Your task to perform on an android device: Go to location settings Image 0: 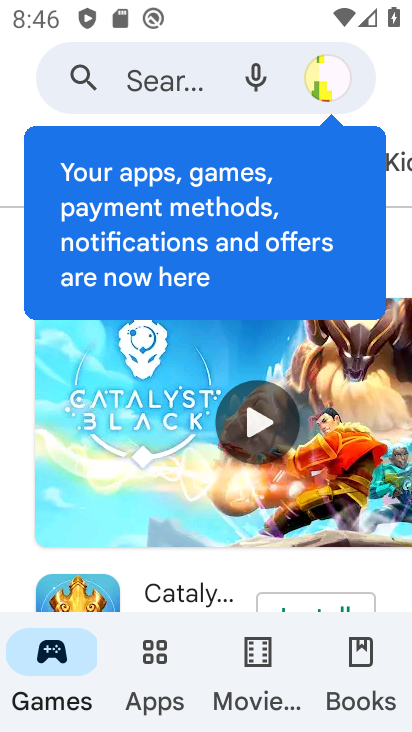
Step 0: press home button
Your task to perform on an android device: Go to location settings Image 1: 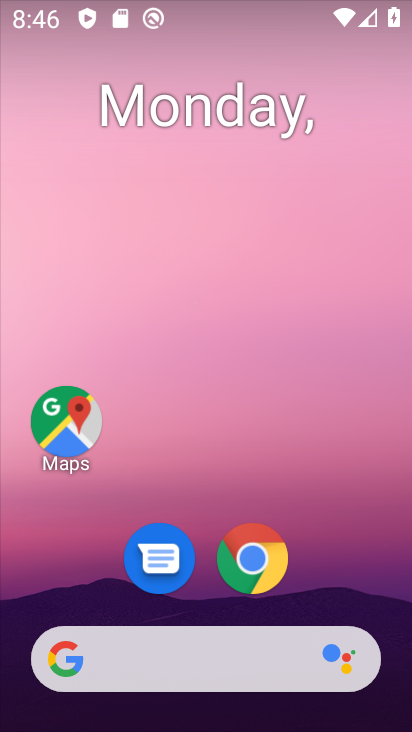
Step 1: drag from (330, 565) to (366, 86)
Your task to perform on an android device: Go to location settings Image 2: 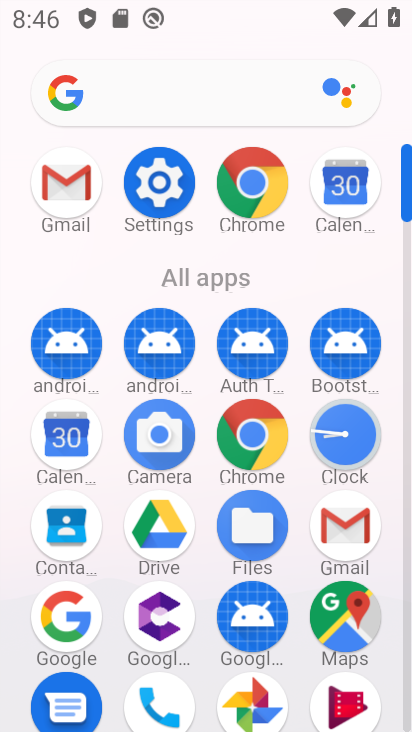
Step 2: click (166, 177)
Your task to perform on an android device: Go to location settings Image 3: 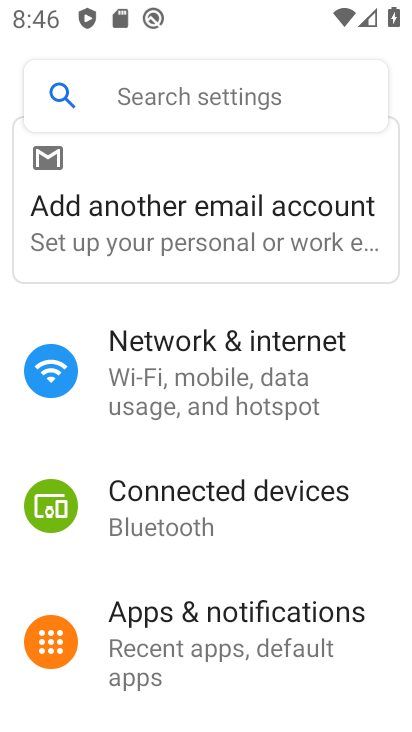
Step 3: drag from (265, 671) to (327, 320)
Your task to perform on an android device: Go to location settings Image 4: 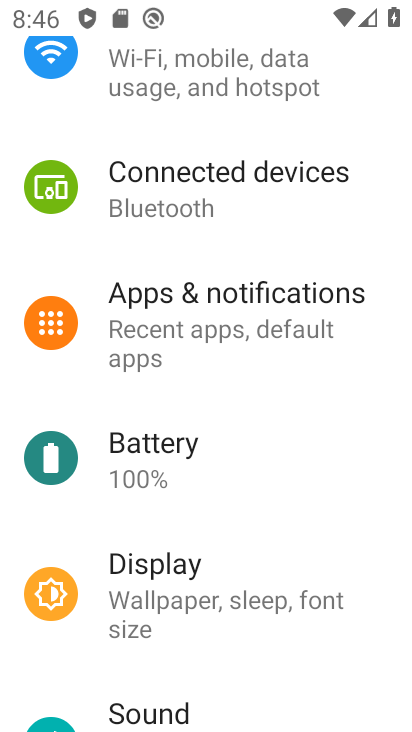
Step 4: drag from (285, 632) to (361, 254)
Your task to perform on an android device: Go to location settings Image 5: 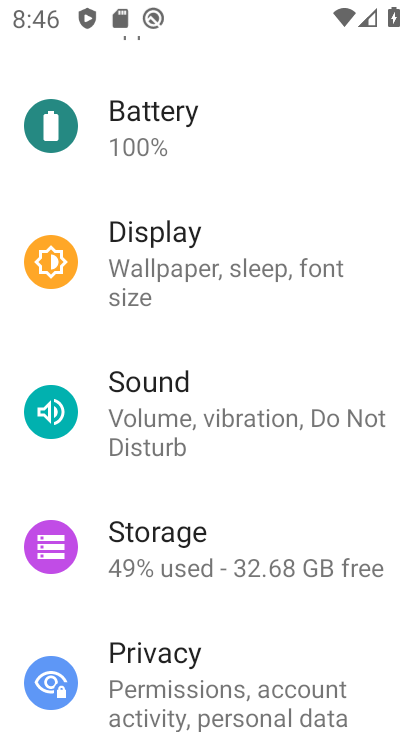
Step 5: drag from (239, 626) to (317, 205)
Your task to perform on an android device: Go to location settings Image 6: 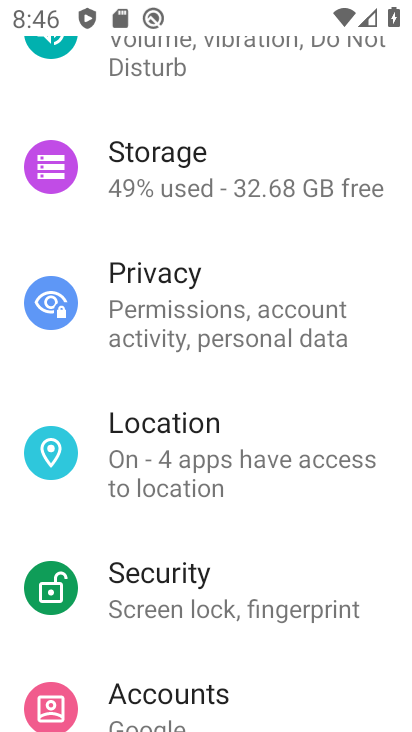
Step 6: click (186, 442)
Your task to perform on an android device: Go to location settings Image 7: 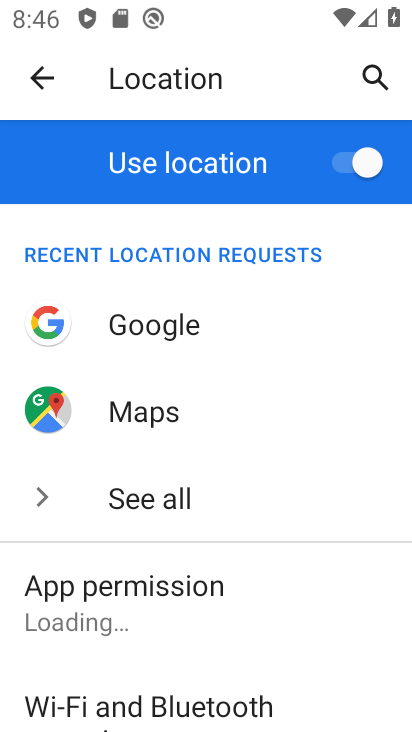
Step 7: task complete